Your task to perform on an android device: Open accessibility settings Image 0: 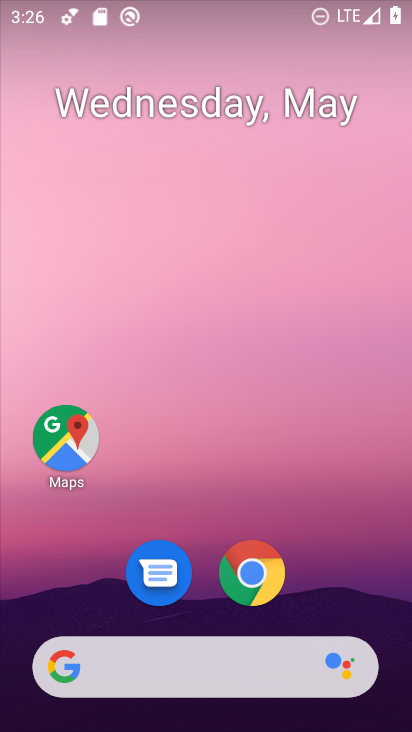
Step 0: drag from (350, 593) to (327, 117)
Your task to perform on an android device: Open accessibility settings Image 1: 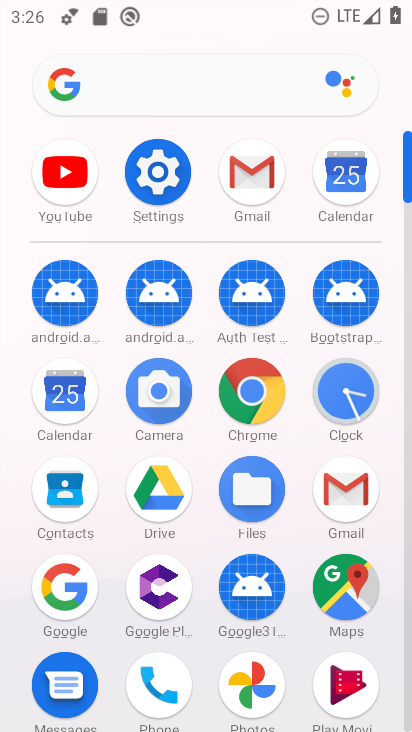
Step 1: click (170, 172)
Your task to perform on an android device: Open accessibility settings Image 2: 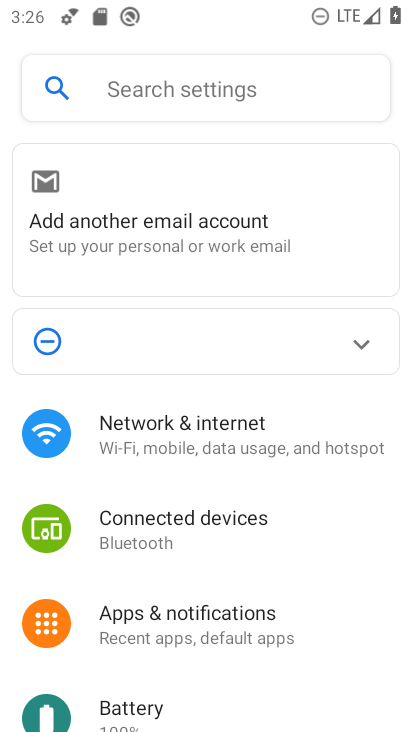
Step 2: drag from (203, 597) to (183, 294)
Your task to perform on an android device: Open accessibility settings Image 3: 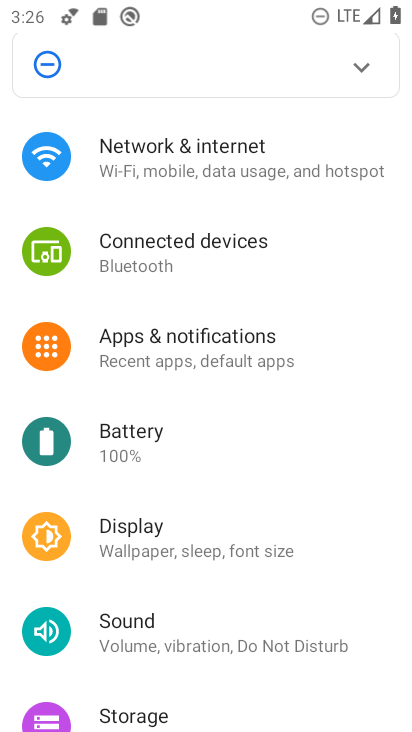
Step 3: drag from (191, 645) to (210, 433)
Your task to perform on an android device: Open accessibility settings Image 4: 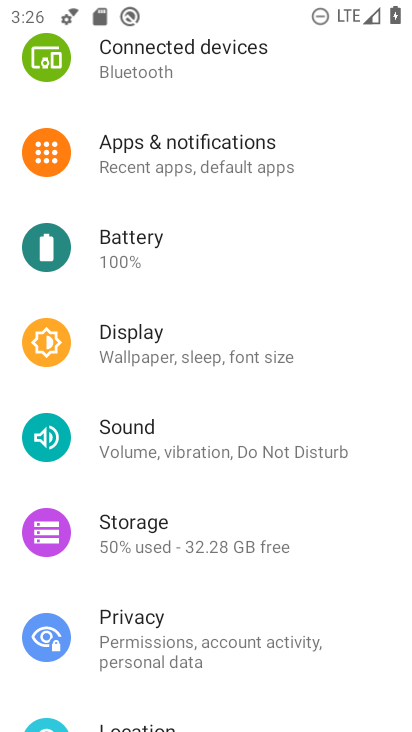
Step 4: drag from (214, 651) to (204, 416)
Your task to perform on an android device: Open accessibility settings Image 5: 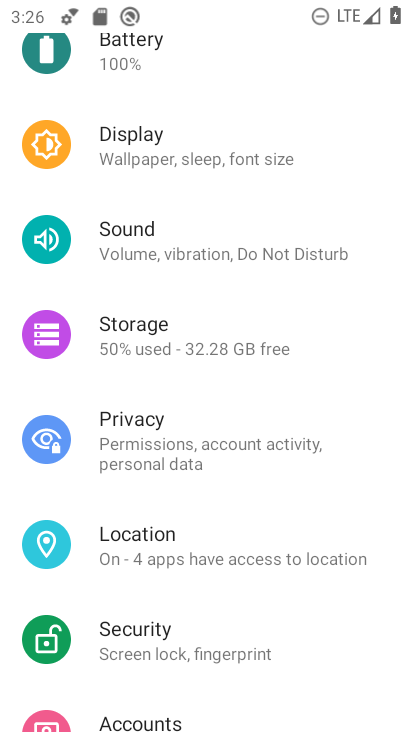
Step 5: drag from (201, 647) to (208, 432)
Your task to perform on an android device: Open accessibility settings Image 6: 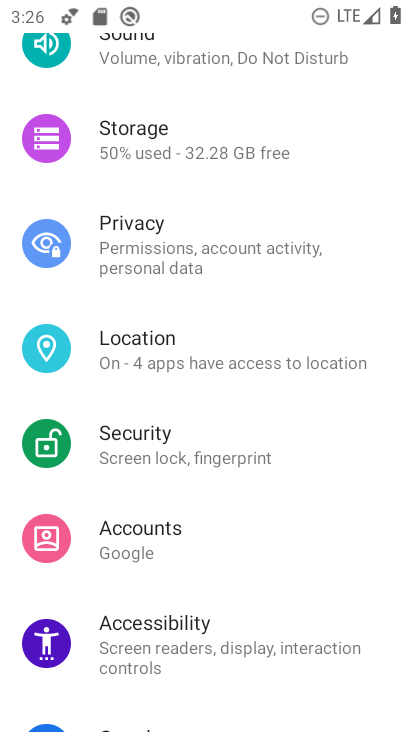
Step 6: click (206, 652)
Your task to perform on an android device: Open accessibility settings Image 7: 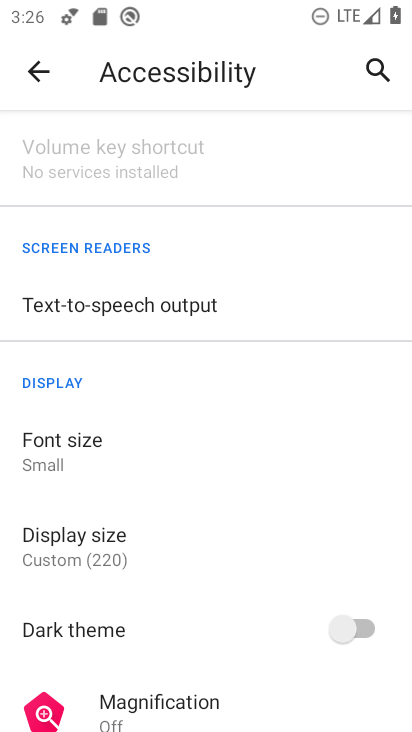
Step 7: task complete